Your task to perform on an android device: Show me recent news Image 0: 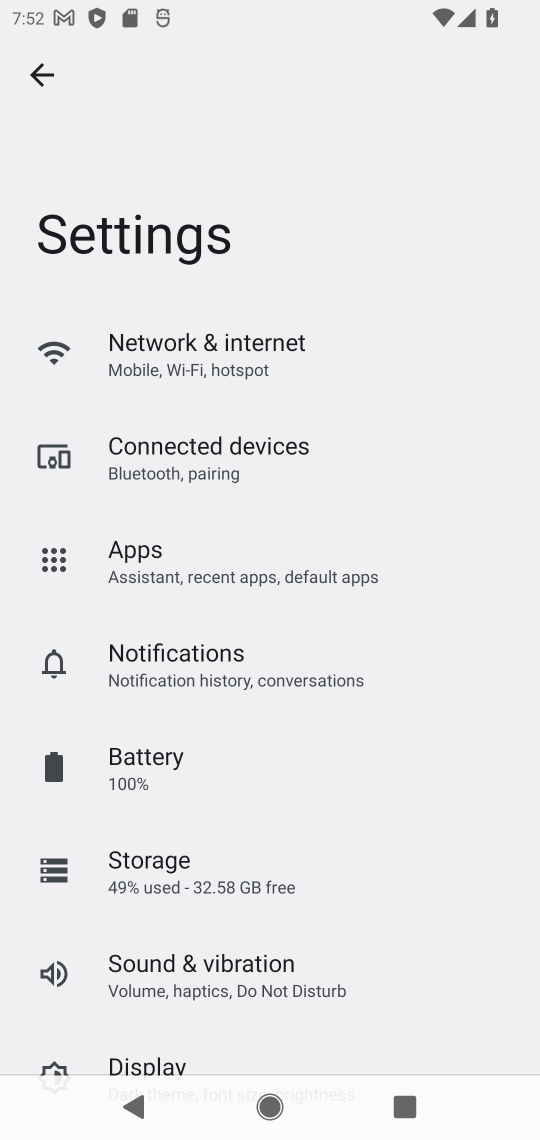
Step 0: press home button
Your task to perform on an android device: Show me recent news Image 1: 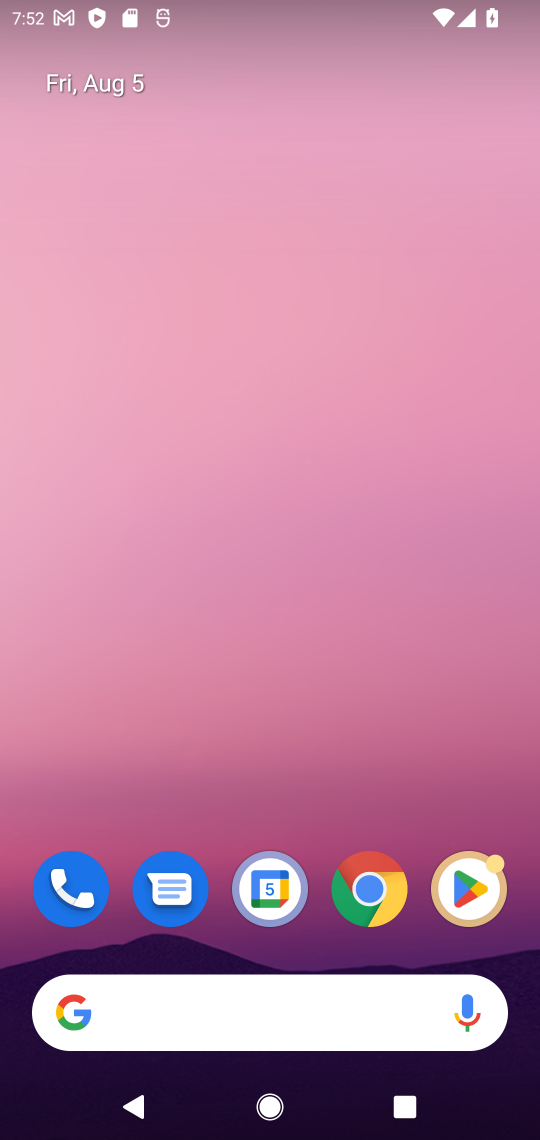
Step 1: drag from (287, 1047) to (397, 124)
Your task to perform on an android device: Show me recent news Image 2: 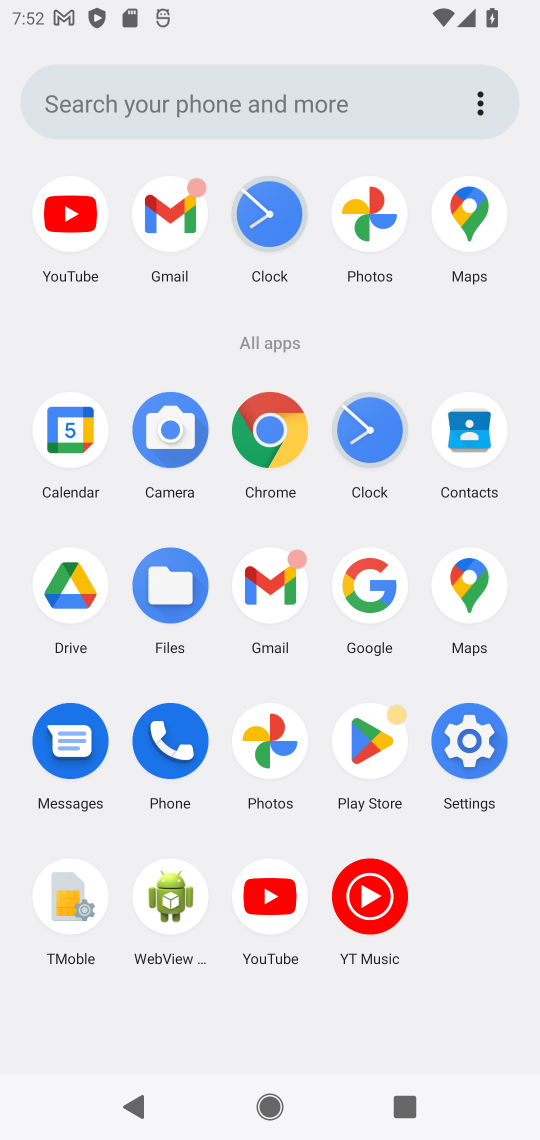
Step 2: click (373, 569)
Your task to perform on an android device: Show me recent news Image 3: 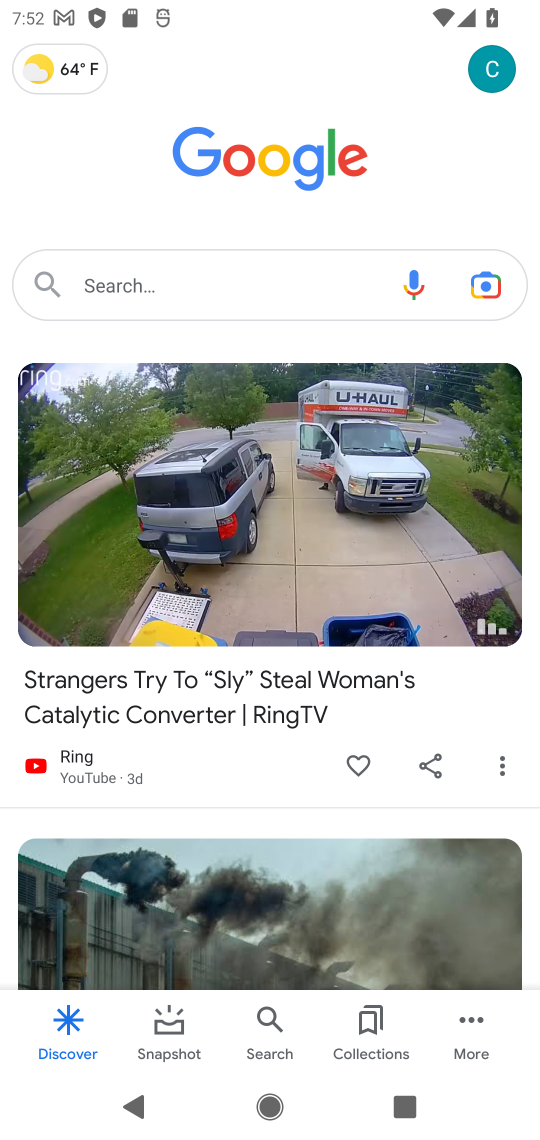
Step 3: click (286, 269)
Your task to perform on an android device: Show me recent news Image 4: 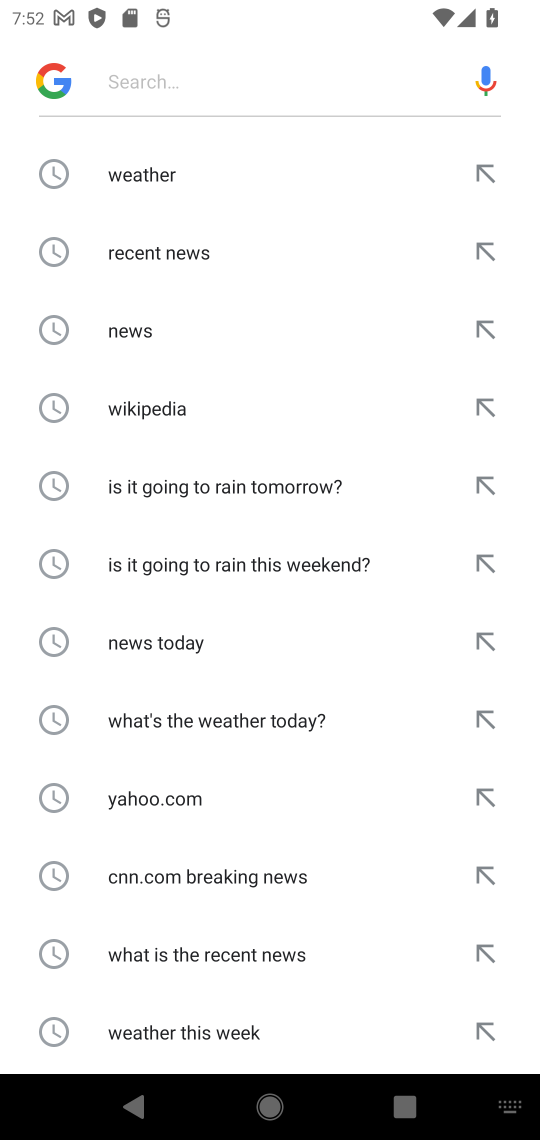
Step 4: type "Show me recent news "
Your task to perform on an android device: Show me recent news Image 5: 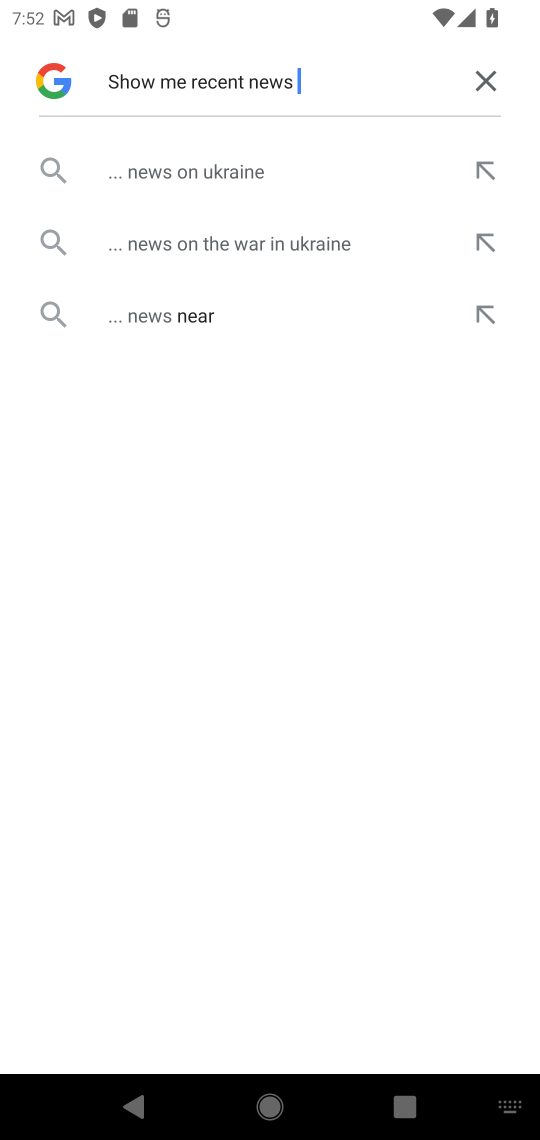
Step 5: click (167, 79)
Your task to perform on an android device: Show me recent news Image 6: 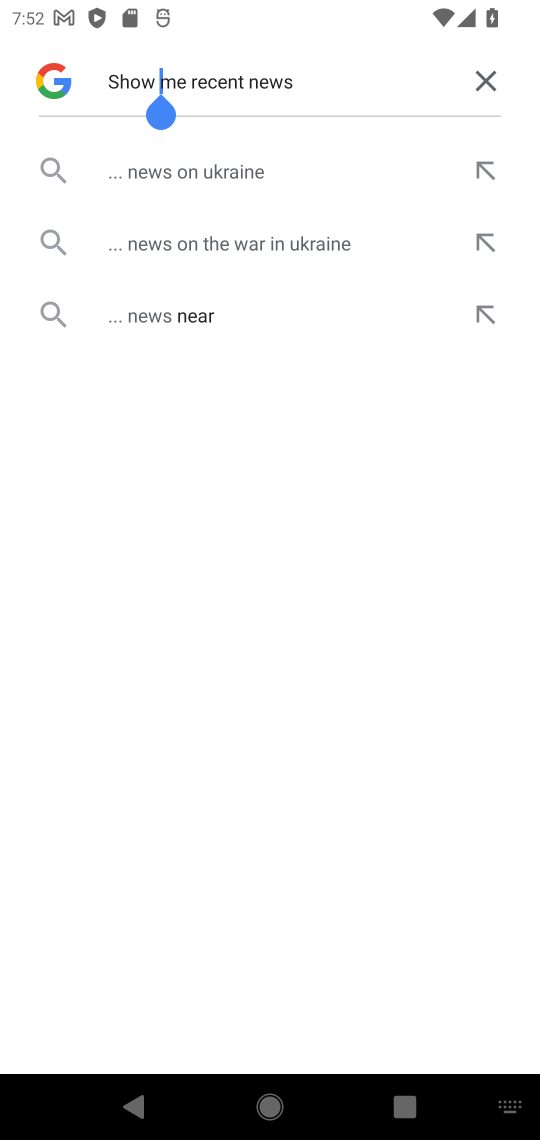
Step 6: click (322, 88)
Your task to perform on an android device: Show me recent news Image 7: 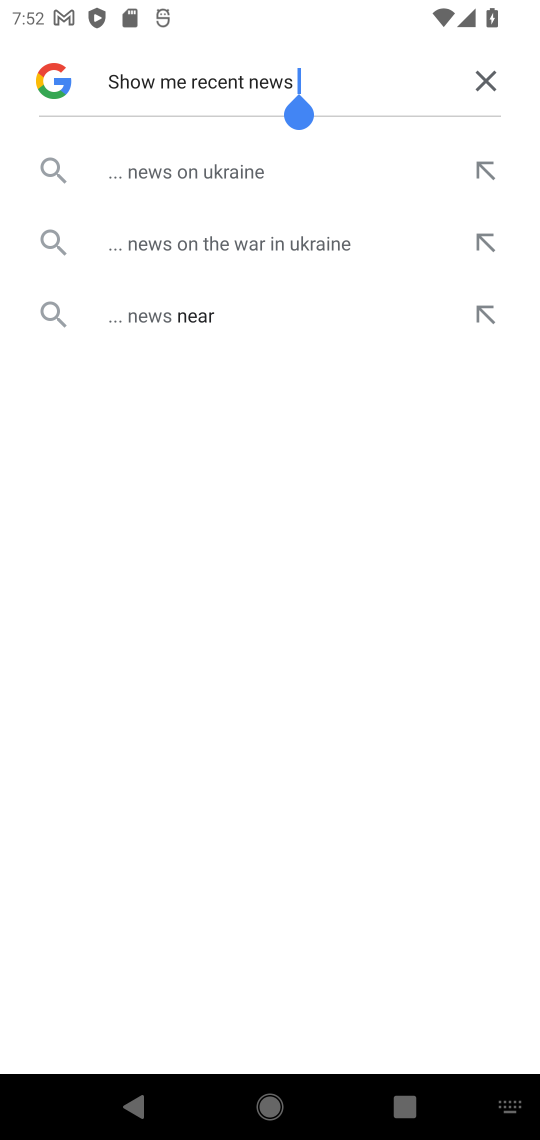
Step 7: click (322, 88)
Your task to perform on an android device: Show me recent news Image 8: 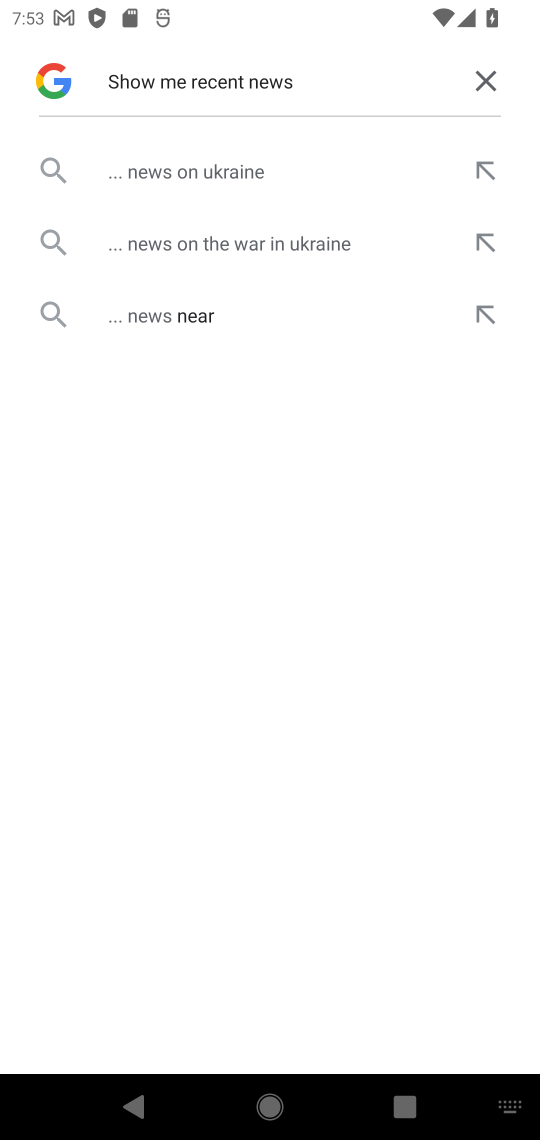
Step 8: task complete